Your task to perform on an android device: Open Youtube and go to "Your channel" Image 0: 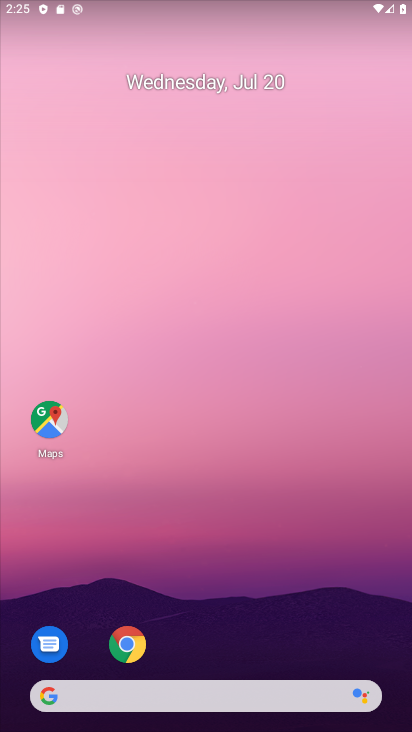
Step 0: drag from (256, 641) to (272, 78)
Your task to perform on an android device: Open Youtube and go to "Your channel" Image 1: 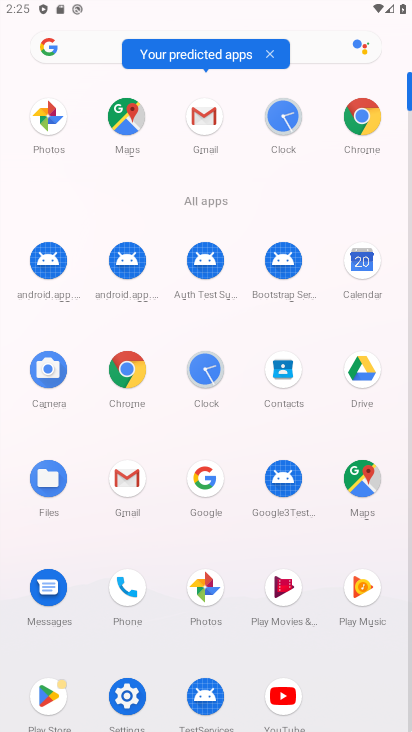
Step 1: click (287, 698)
Your task to perform on an android device: Open Youtube and go to "Your channel" Image 2: 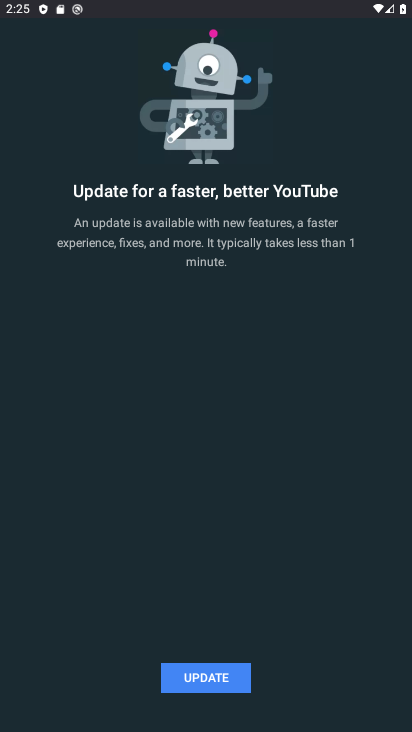
Step 2: click (224, 684)
Your task to perform on an android device: Open Youtube and go to "Your channel" Image 3: 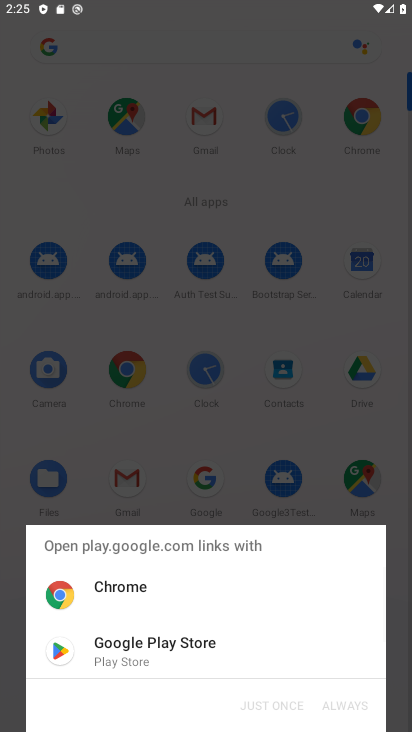
Step 3: click (167, 665)
Your task to perform on an android device: Open Youtube and go to "Your channel" Image 4: 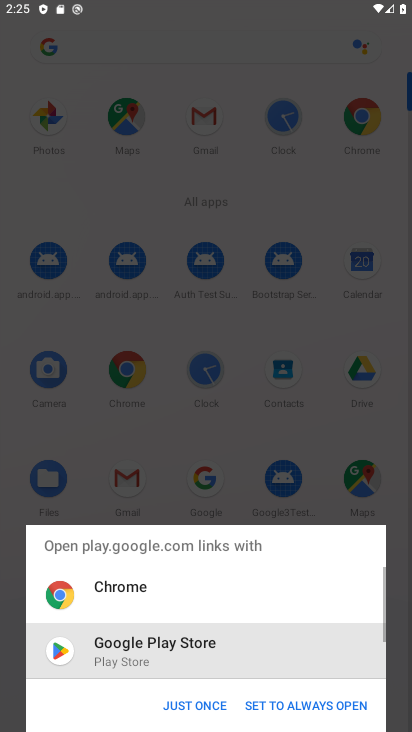
Step 4: click (201, 694)
Your task to perform on an android device: Open Youtube and go to "Your channel" Image 5: 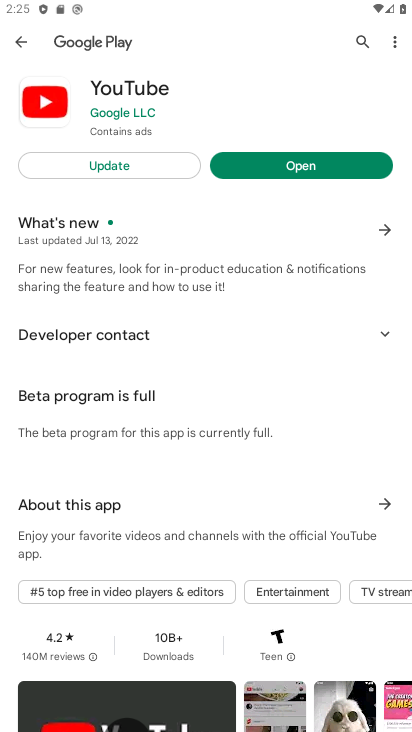
Step 5: click (112, 169)
Your task to perform on an android device: Open Youtube and go to "Your channel" Image 6: 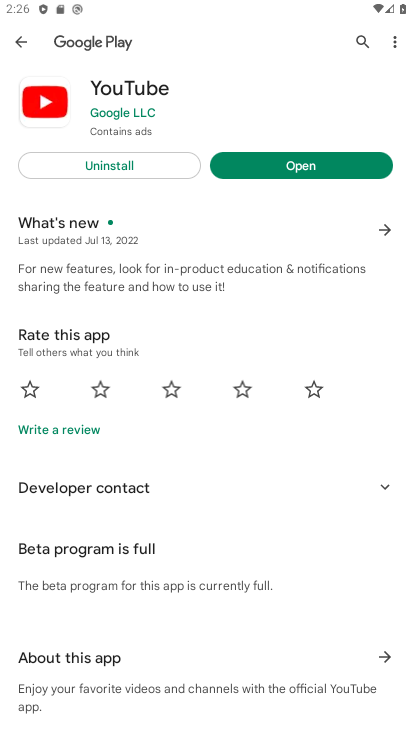
Step 6: click (297, 159)
Your task to perform on an android device: Open Youtube and go to "Your channel" Image 7: 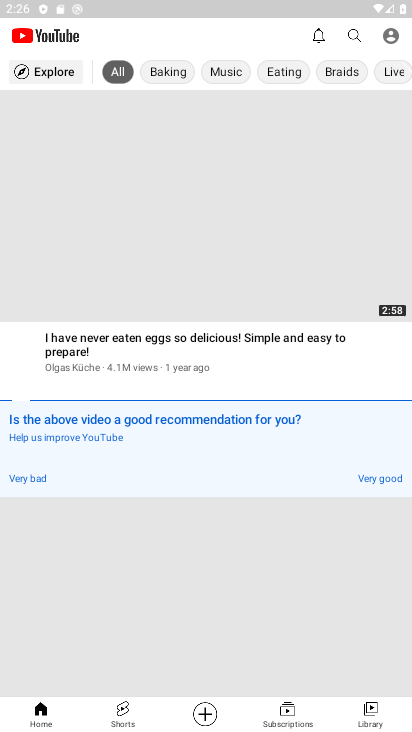
Step 7: click (395, 44)
Your task to perform on an android device: Open Youtube and go to "Your channel" Image 8: 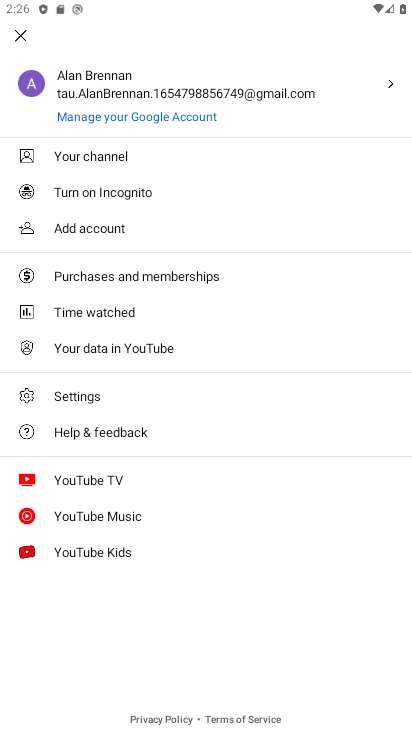
Step 8: click (136, 154)
Your task to perform on an android device: Open Youtube and go to "Your channel" Image 9: 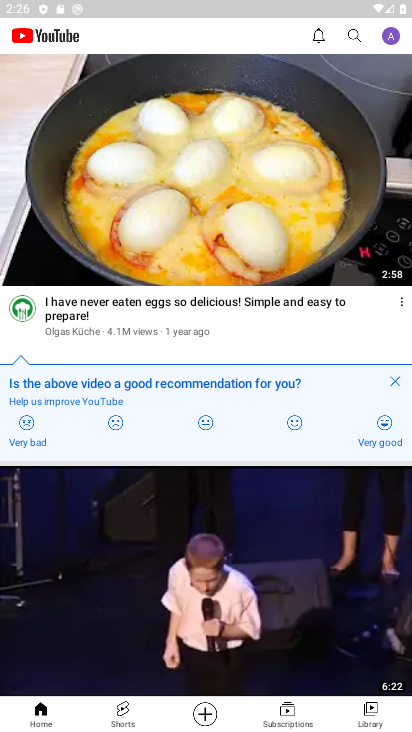
Step 9: task complete